Your task to perform on an android device: Go to location settings Image 0: 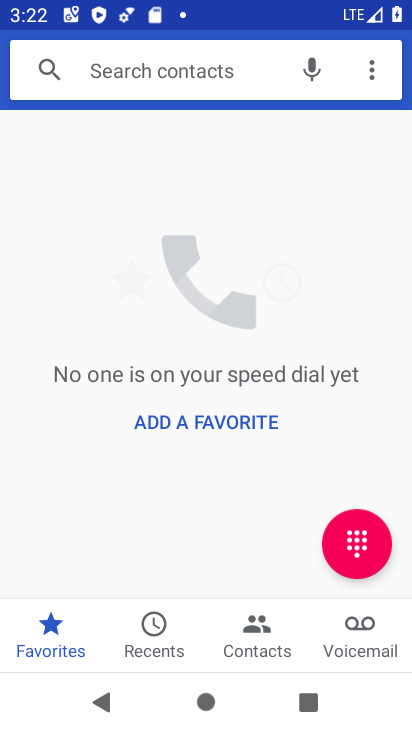
Step 0: press home button
Your task to perform on an android device: Go to location settings Image 1: 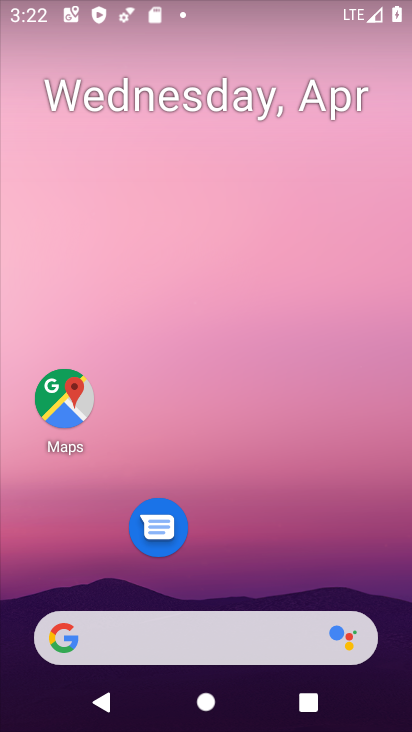
Step 1: drag from (229, 487) to (251, 38)
Your task to perform on an android device: Go to location settings Image 2: 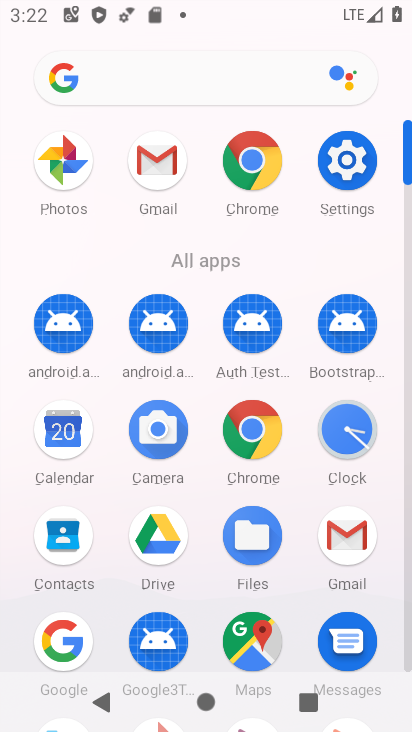
Step 2: click (335, 174)
Your task to perform on an android device: Go to location settings Image 3: 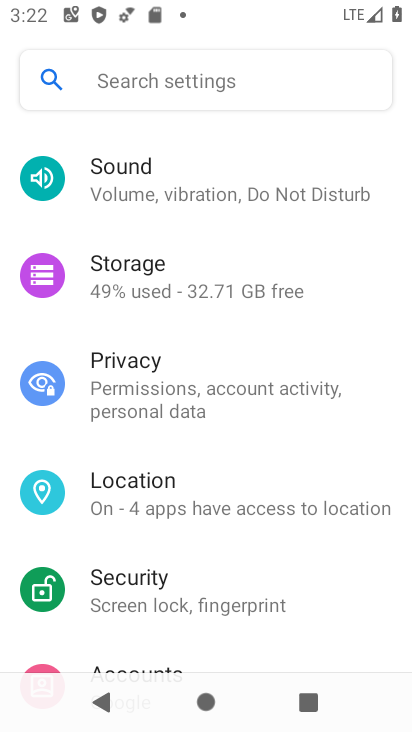
Step 3: drag from (189, 518) to (189, 455)
Your task to perform on an android device: Go to location settings Image 4: 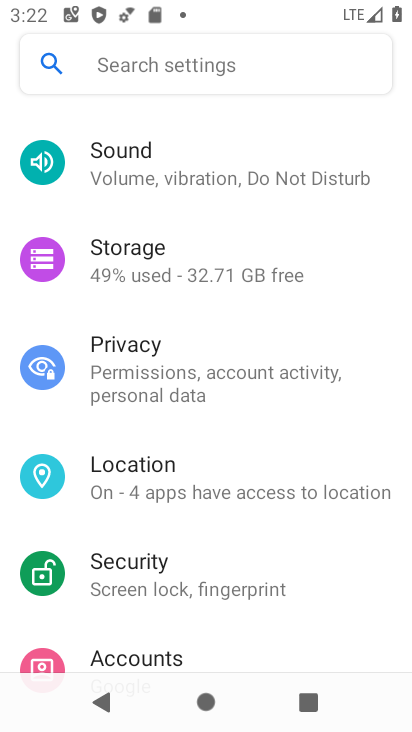
Step 4: click (189, 455)
Your task to perform on an android device: Go to location settings Image 5: 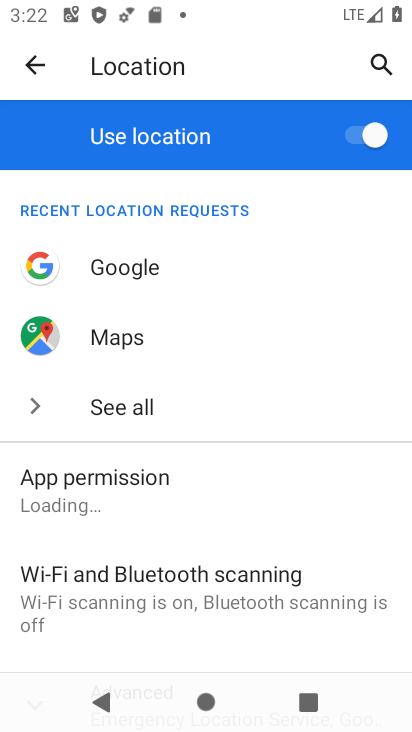
Step 5: task complete